Your task to perform on an android device: add a label to a message in the gmail app Image 0: 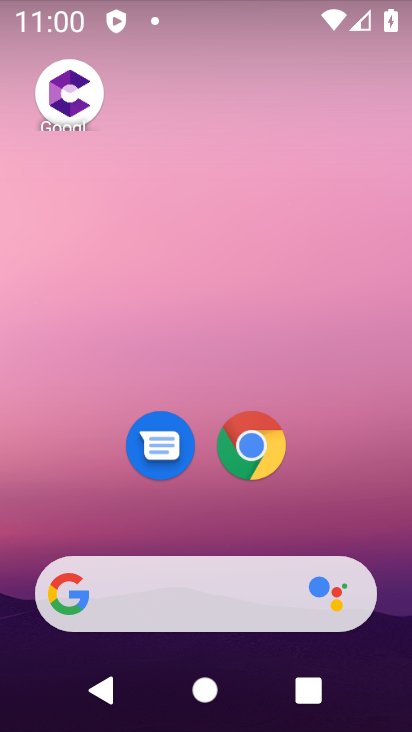
Step 0: drag from (237, 608) to (233, 40)
Your task to perform on an android device: add a label to a message in the gmail app Image 1: 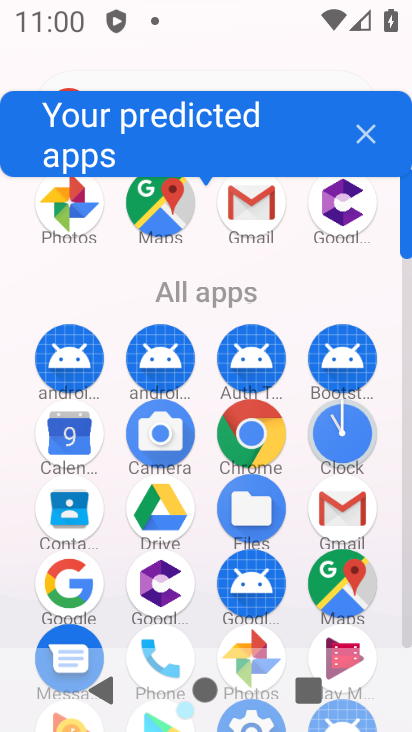
Step 1: click (350, 525)
Your task to perform on an android device: add a label to a message in the gmail app Image 2: 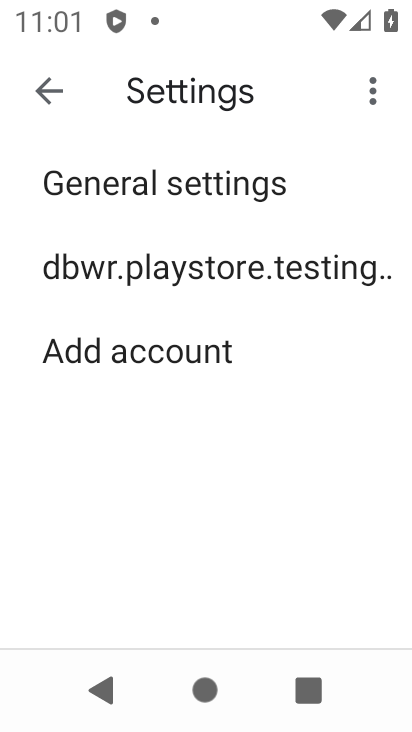
Step 2: press back button
Your task to perform on an android device: add a label to a message in the gmail app Image 3: 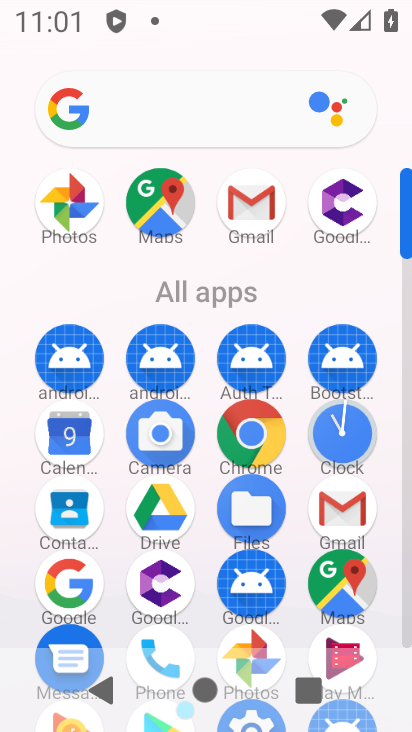
Step 3: click (349, 515)
Your task to perform on an android device: add a label to a message in the gmail app Image 4: 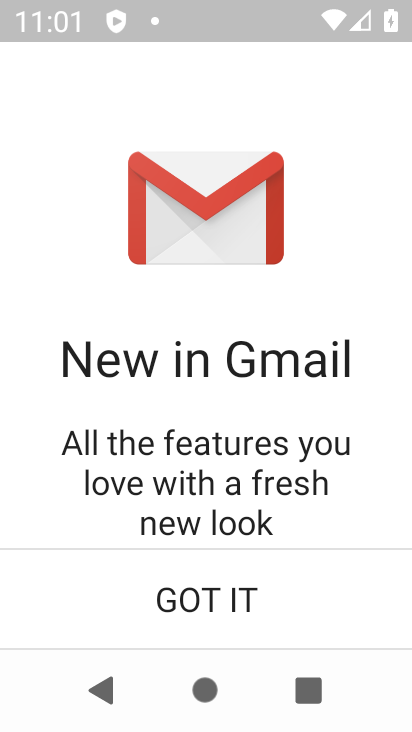
Step 4: click (284, 586)
Your task to perform on an android device: add a label to a message in the gmail app Image 5: 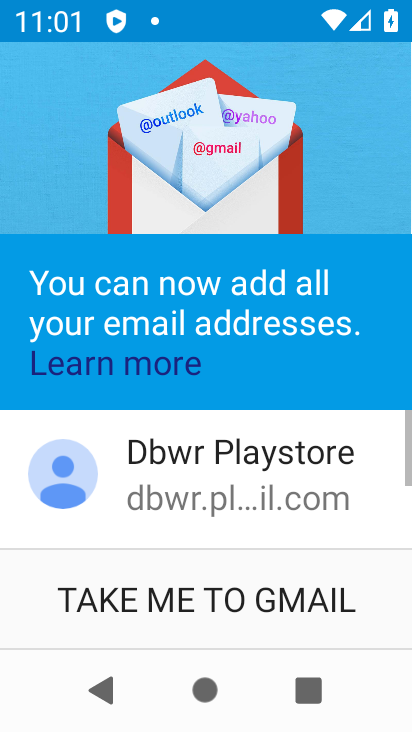
Step 5: click (285, 575)
Your task to perform on an android device: add a label to a message in the gmail app Image 6: 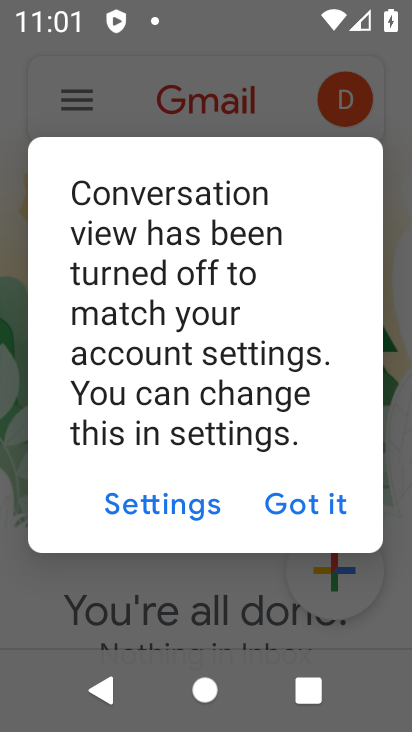
Step 6: click (320, 502)
Your task to perform on an android device: add a label to a message in the gmail app Image 7: 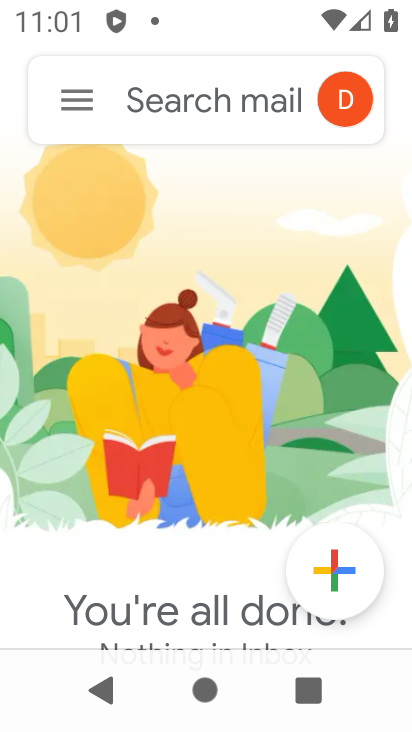
Step 7: task complete